Your task to perform on an android device: turn off notifications in google photos Image 0: 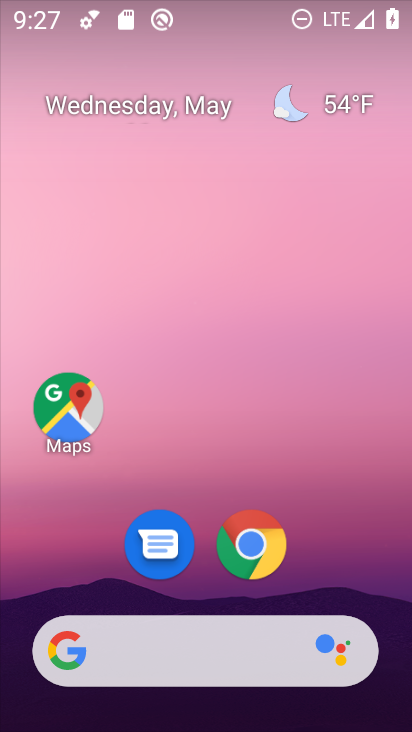
Step 0: drag from (208, 600) to (247, 247)
Your task to perform on an android device: turn off notifications in google photos Image 1: 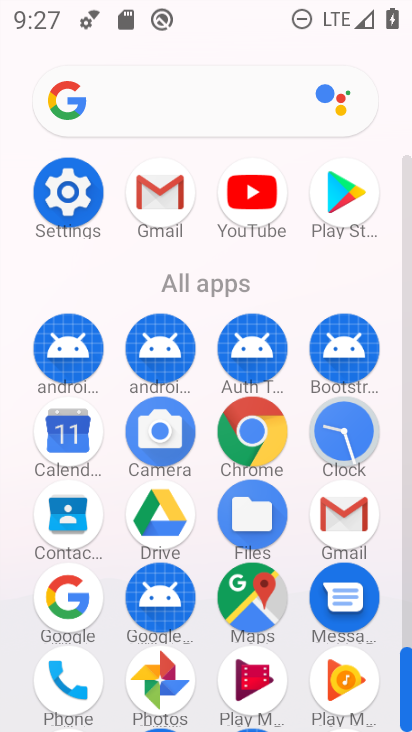
Step 1: click (178, 664)
Your task to perform on an android device: turn off notifications in google photos Image 2: 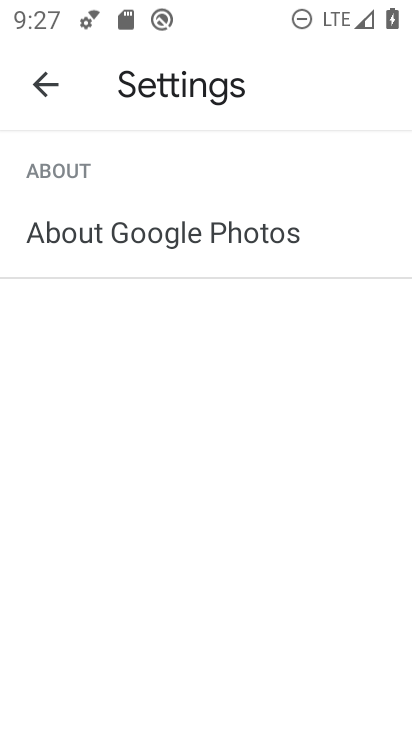
Step 2: click (74, 81)
Your task to perform on an android device: turn off notifications in google photos Image 3: 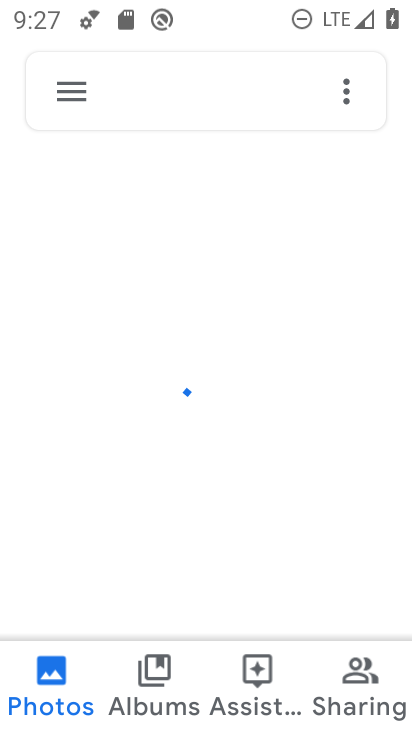
Step 3: click (74, 81)
Your task to perform on an android device: turn off notifications in google photos Image 4: 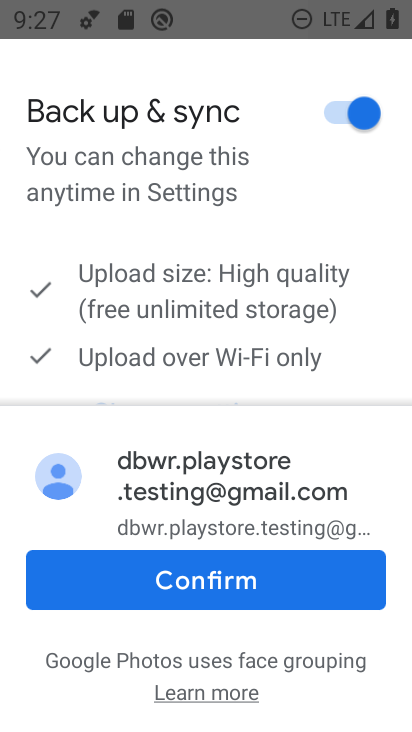
Step 4: click (240, 567)
Your task to perform on an android device: turn off notifications in google photos Image 5: 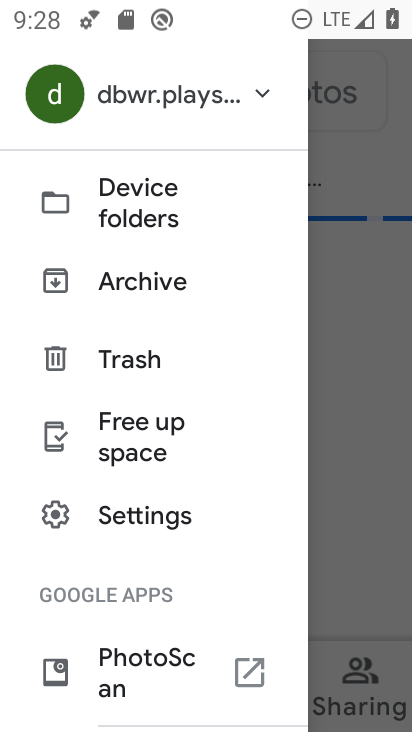
Step 5: click (161, 538)
Your task to perform on an android device: turn off notifications in google photos Image 6: 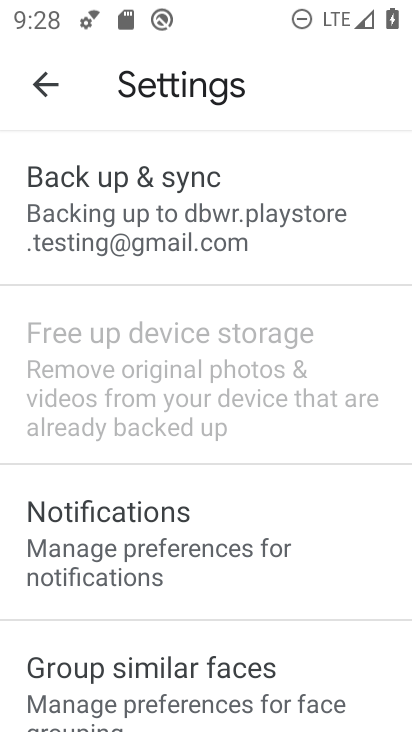
Step 6: click (142, 524)
Your task to perform on an android device: turn off notifications in google photos Image 7: 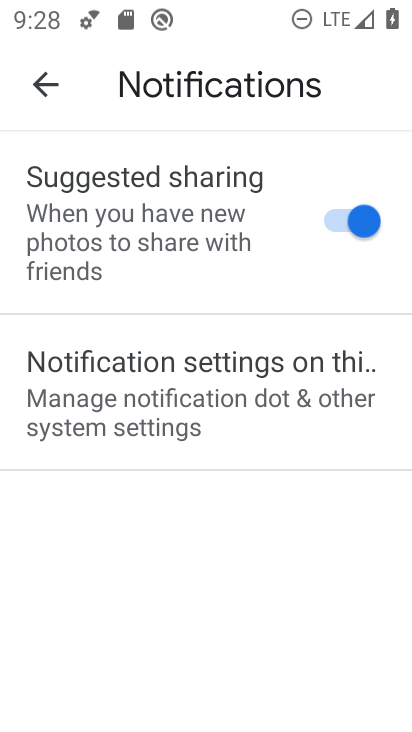
Step 7: click (367, 221)
Your task to perform on an android device: turn off notifications in google photos Image 8: 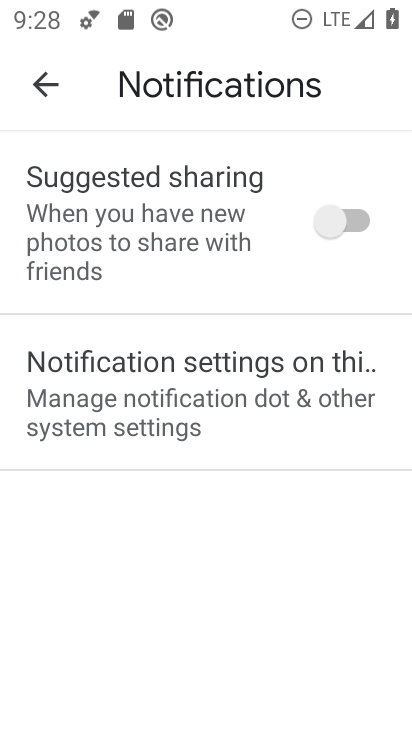
Step 8: task complete